Your task to perform on an android device: change alarm snooze length Image 0: 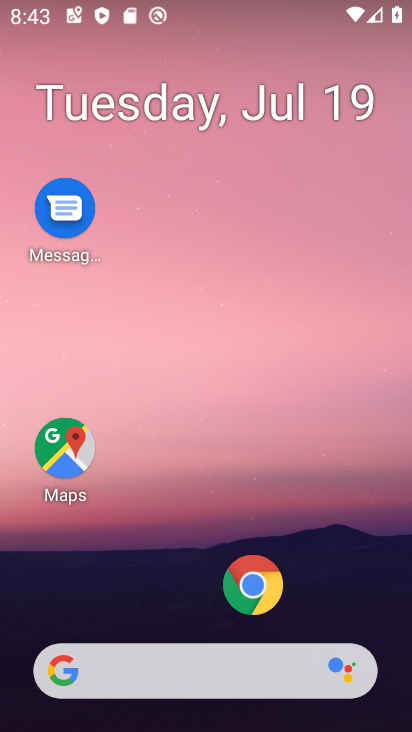
Step 0: drag from (168, 621) to (207, 153)
Your task to perform on an android device: change alarm snooze length Image 1: 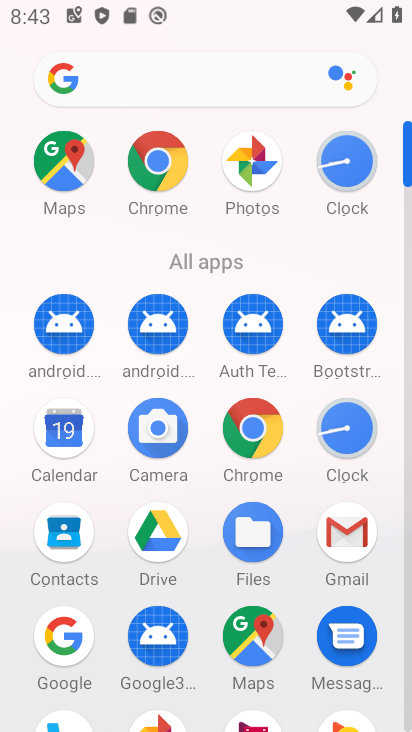
Step 1: click (341, 445)
Your task to perform on an android device: change alarm snooze length Image 2: 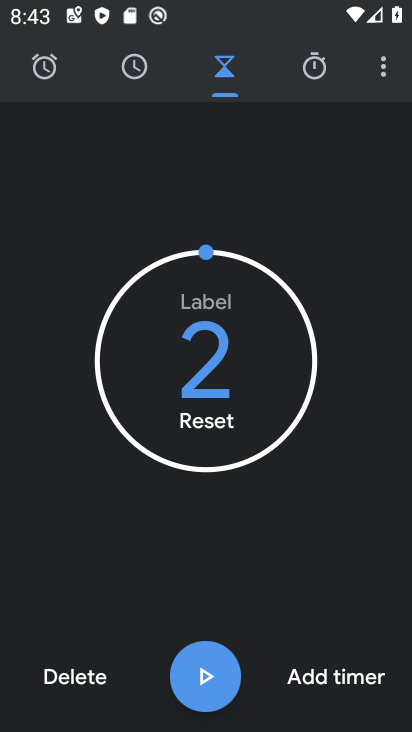
Step 2: click (377, 69)
Your task to perform on an android device: change alarm snooze length Image 3: 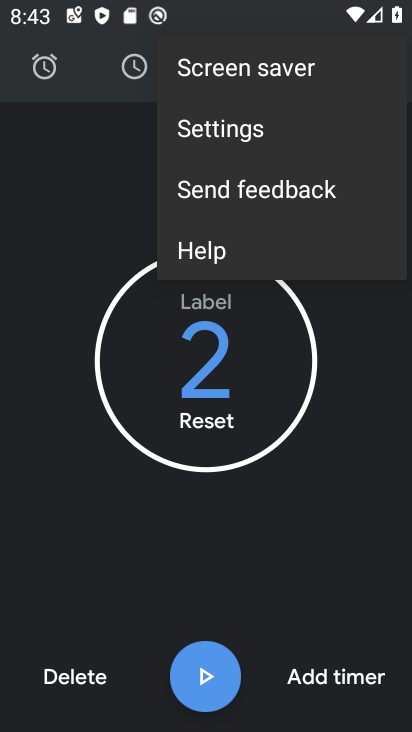
Step 3: click (228, 124)
Your task to perform on an android device: change alarm snooze length Image 4: 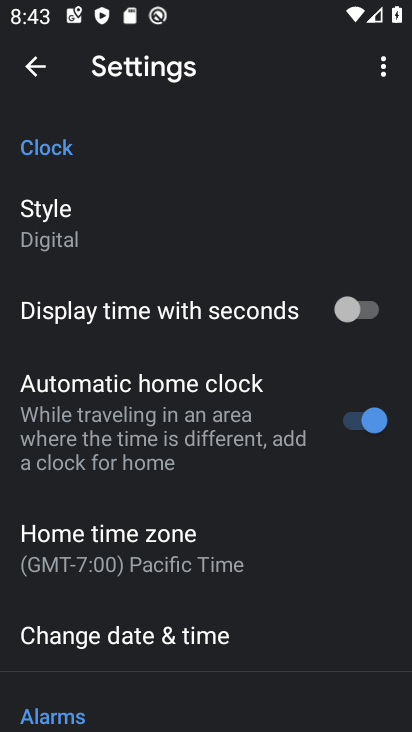
Step 4: drag from (153, 617) to (89, 117)
Your task to perform on an android device: change alarm snooze length Image 5: 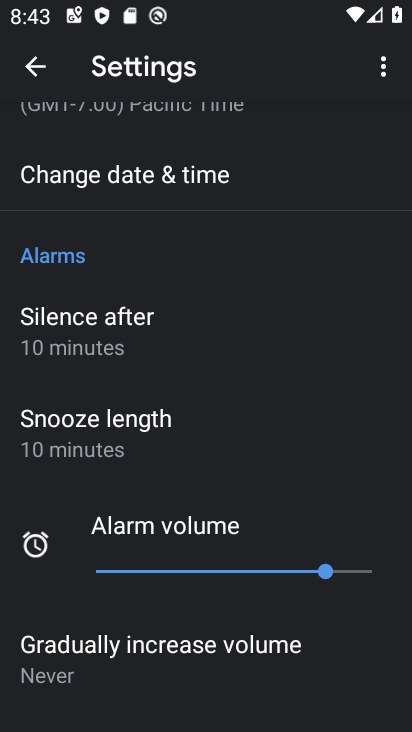
Step 5: click (83, 424)
Your task to perform on an android device: change alarm snooze length Image 6: 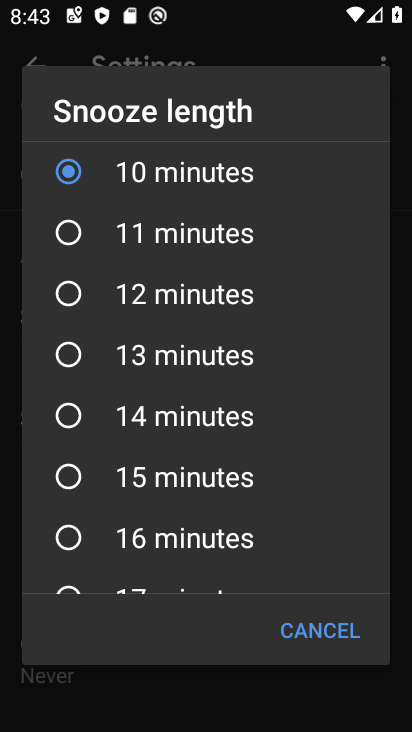
Step 6: click (83, 224)
Your task to perform on an android device: change alarm snooze length Image 7: 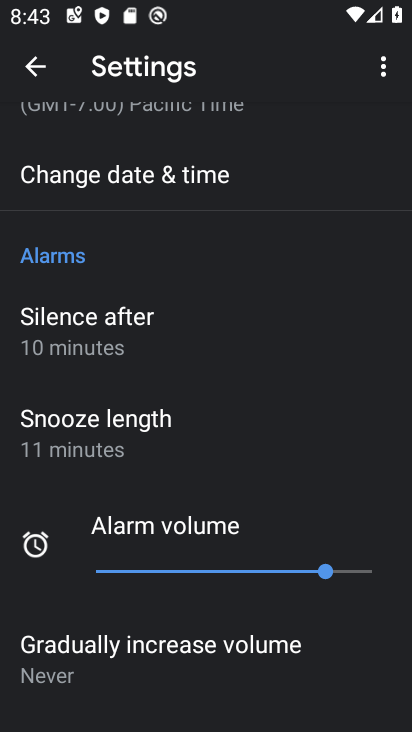
Step 7: task complete